Your task to perform on an android device: Go to Android settings Image 0: 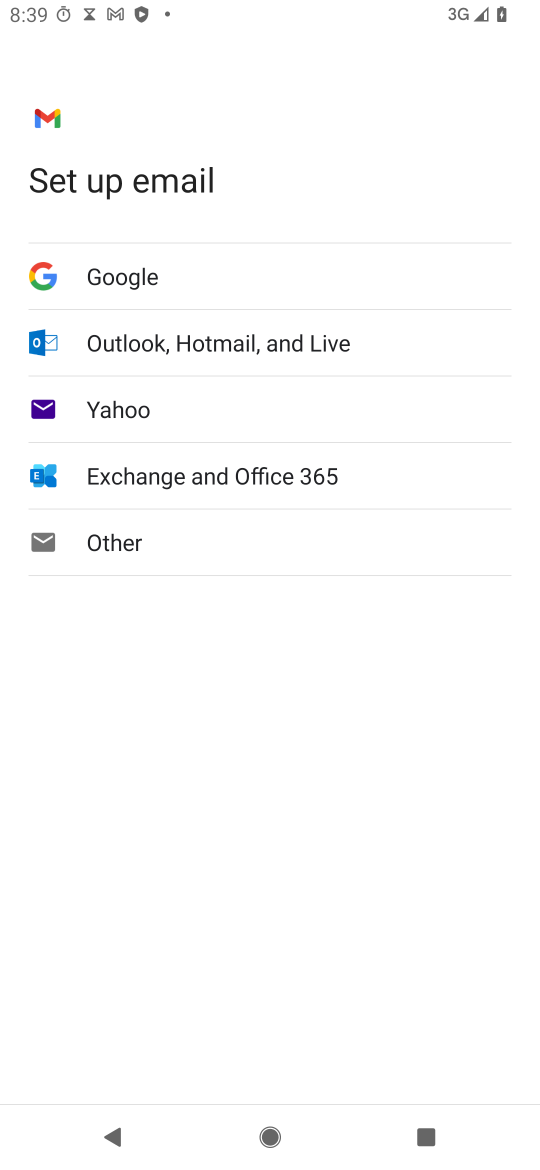
Step 0: press home button
Your task to perform on an android device: Go to Android settings Image 1: 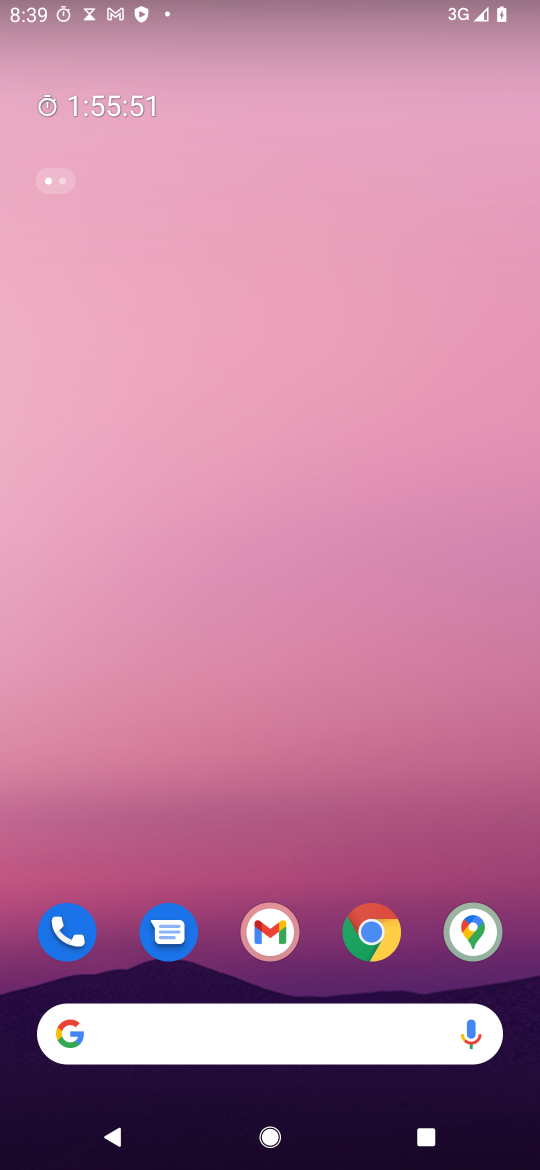
Step 1: drag from (336, 846) to (401, 43)
Your task to perform on an android device: Go to Android settings Image 2: 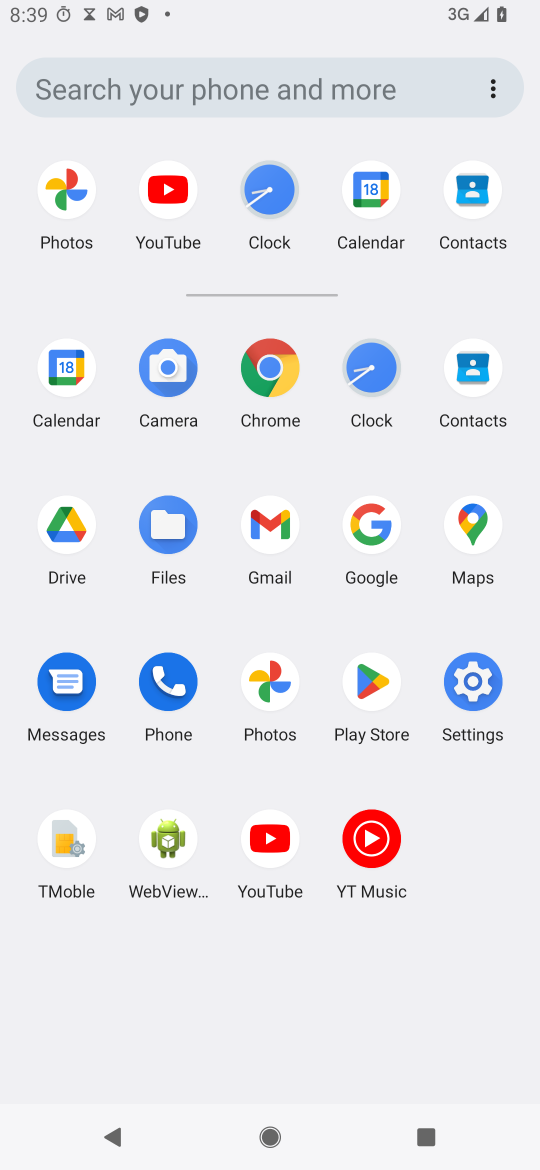
Step 2: click (465, 686)
Your task to perform on an android device: Go to Android settings Image 3: 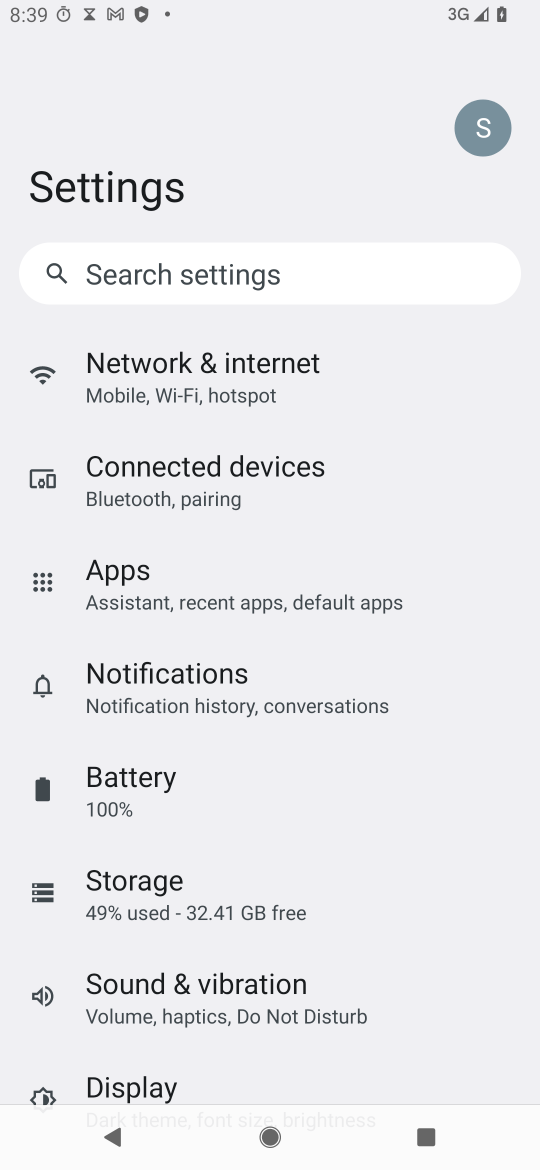
Step 3: drag from (393, 924) to (539, 1016)
Your task to perform on an android device: Go to Android settings Image 4: 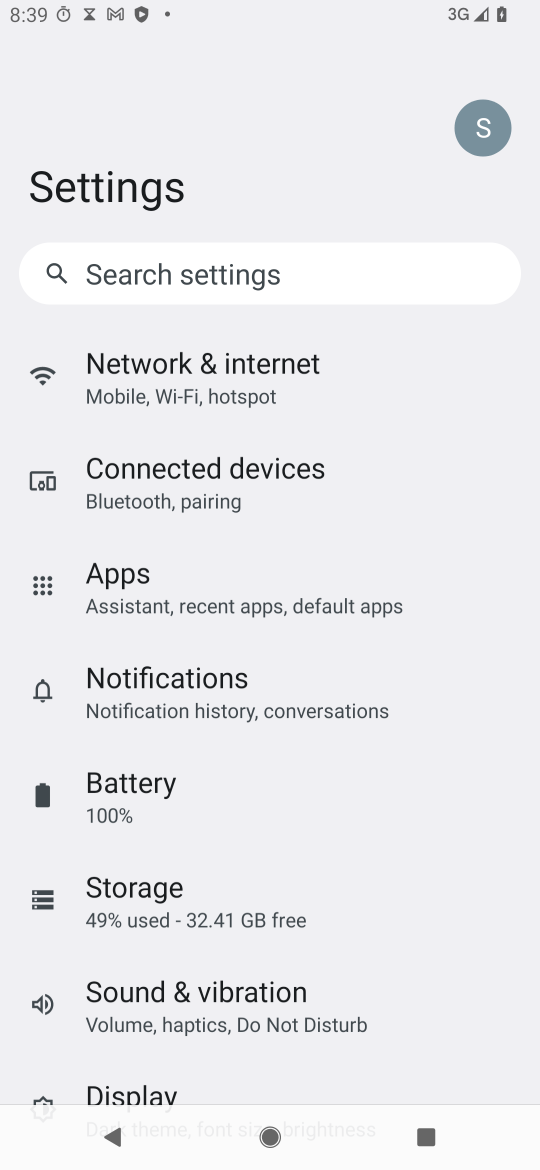
Step 4: drag from (321, 1037) to (285, 21)
Your task to perform on an android device: Go to Android settings Image 5: 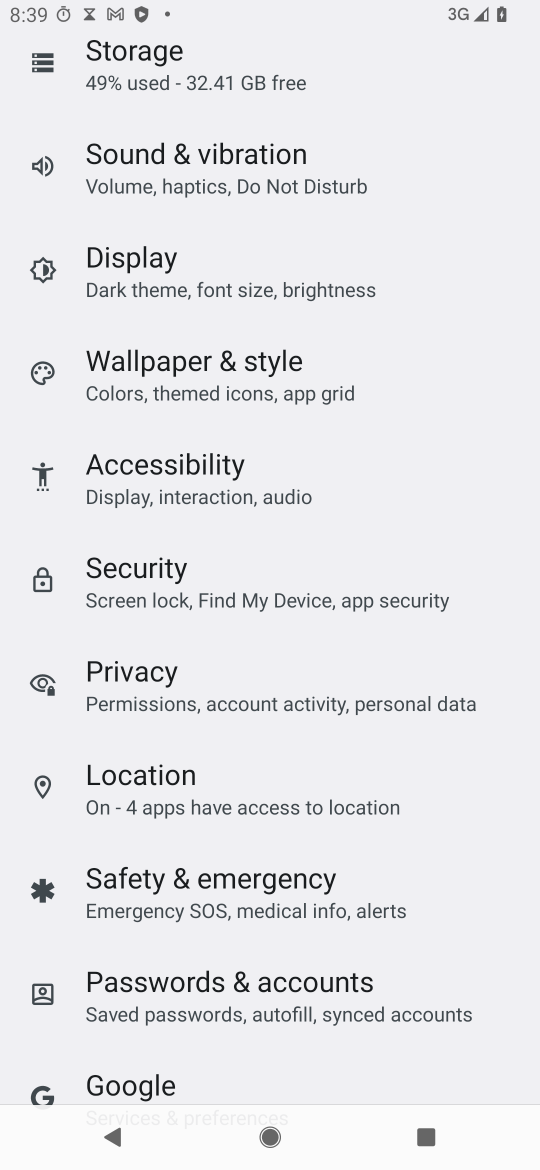
Step 5: drag from (110, 774) to (212, 7)
Your task to perform on an android device: Go to Android settings Image 6: 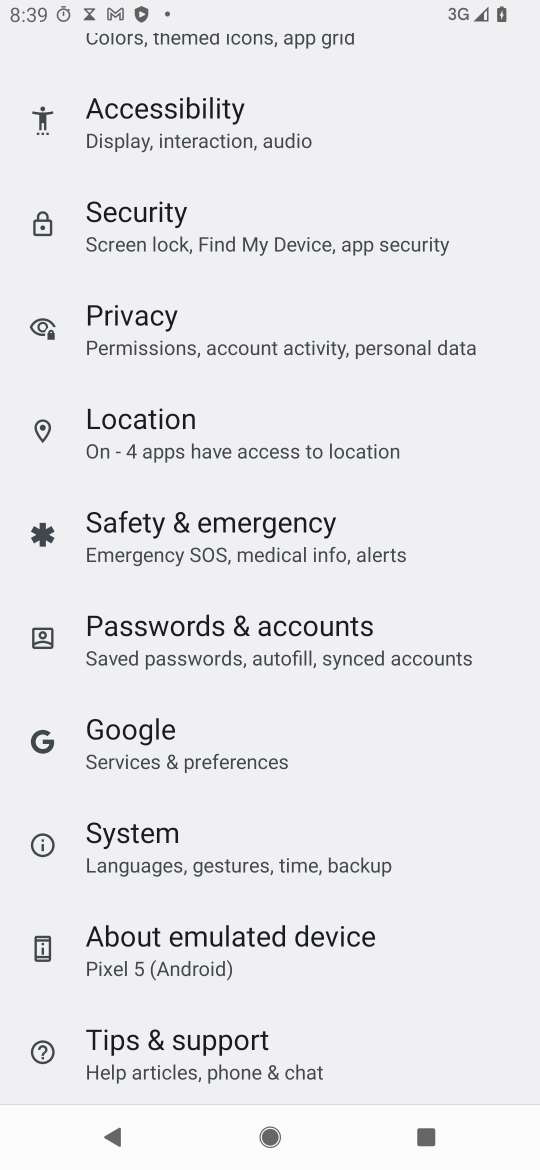
Step 6: click (164, 933)
Your task to perform on an android device: Go to Android settings Image 7: 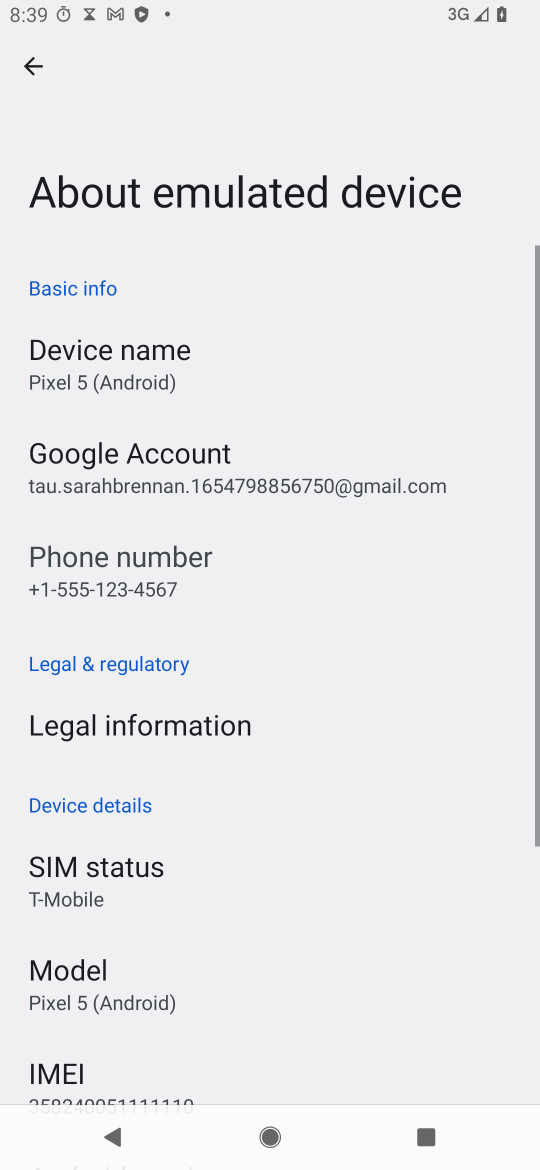
Step 7: drag from (313, 844) to (469, 205)
Your task to perform on an android device: Go to Android settings Image 8: 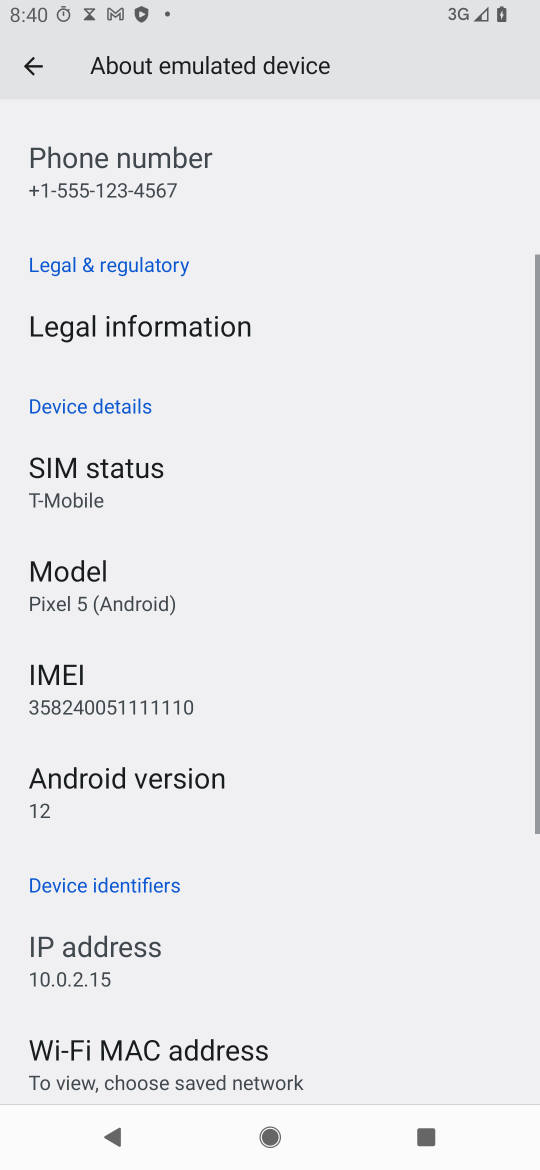
Step 8: click (145, 780)
Your task to perform on an android device: Go to Android settings Image 9: 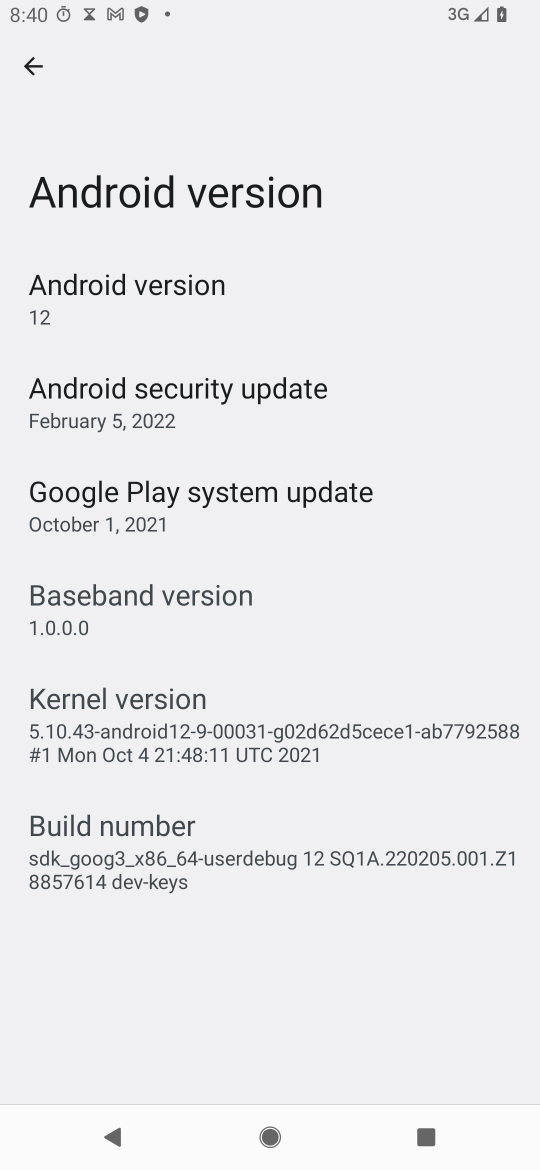
Step 9: task complete